Your task to perform on an android device: turn off priority inbox in the gmail app Image 0: 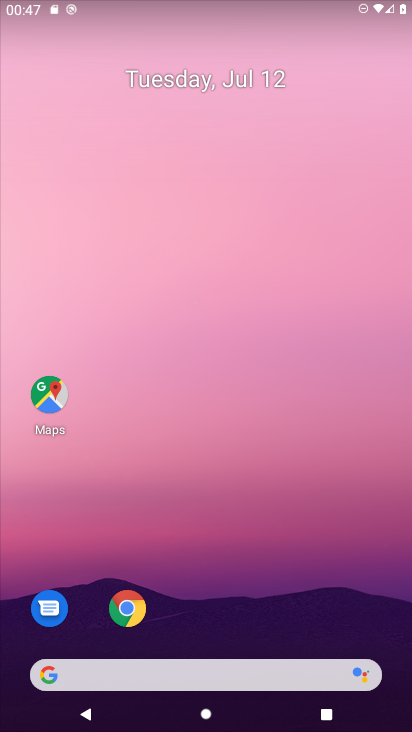
Step 0: drag from (231, 665) to (199, 111)
Your task to perform on an android device: turn off priority inbox in the gmail app Image 1: 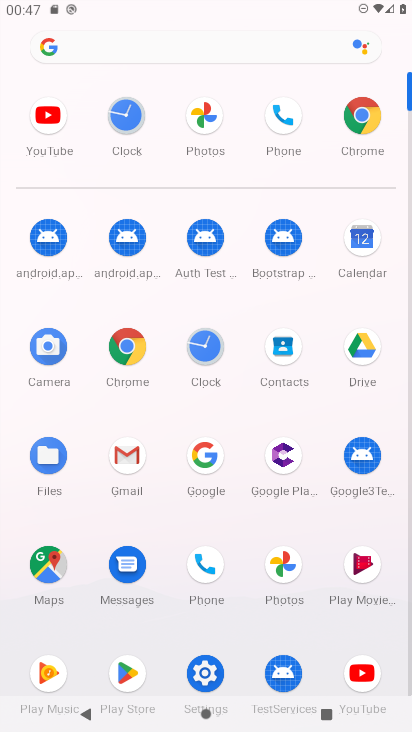
Step 1: click (124, 470)
Your task to perform on an android device: turn off priority inbox in the gmail app Image 2: 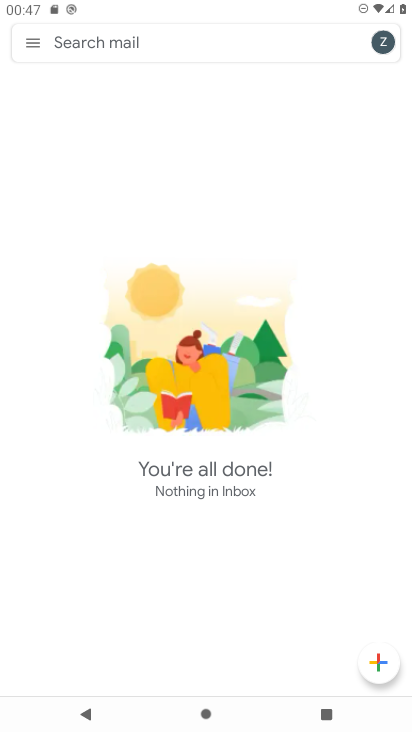
Step 2: click (27, 49)
Your task to perform on an android device: turn off priority inbox in the gmail app Image 3: 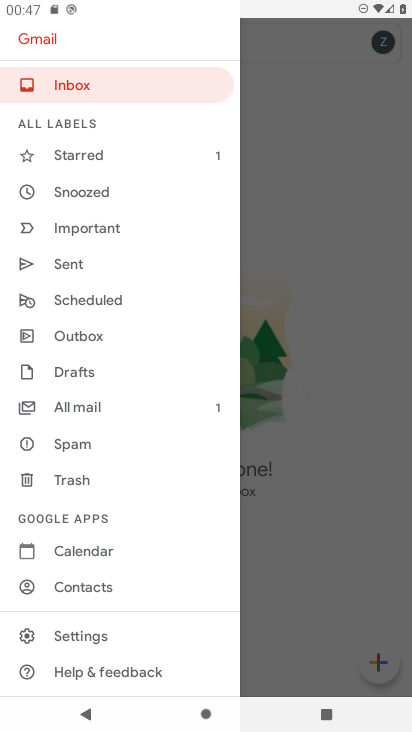
Step 3: click (105, 636)
Your task to perform on an android device: turn off priority inbox in the gmail app Image 4: 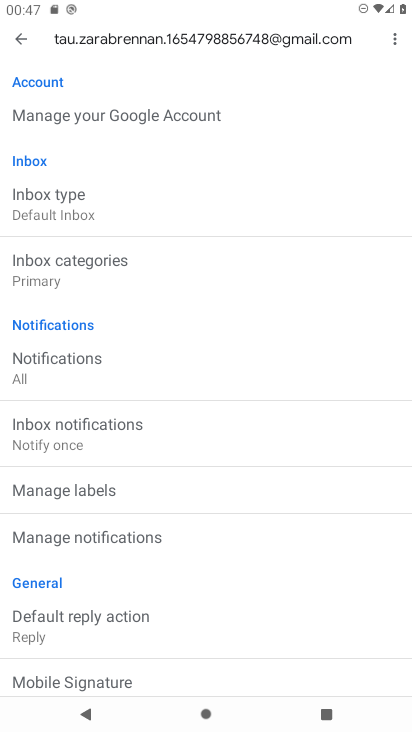
Step 4: drag from (121, 523) to (120, 102)
Your task to perform on an android device: turn off priority inbox in the gmail app Image 5: 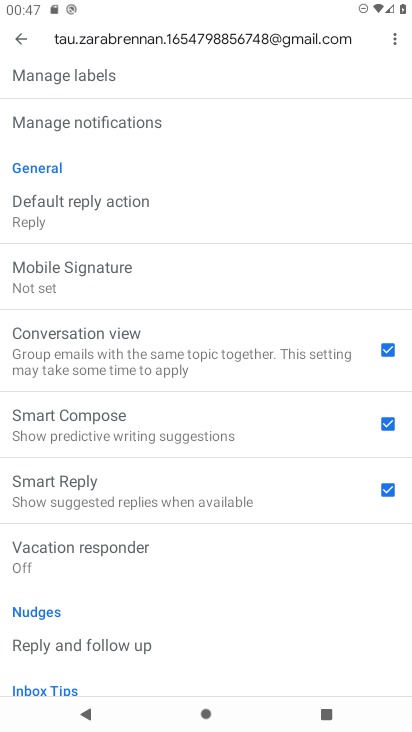
Step 5: drag from (85, 640) to (70, 197)
Your task to perform on an android device: turn off priority inbox in the gmail app Image 6: 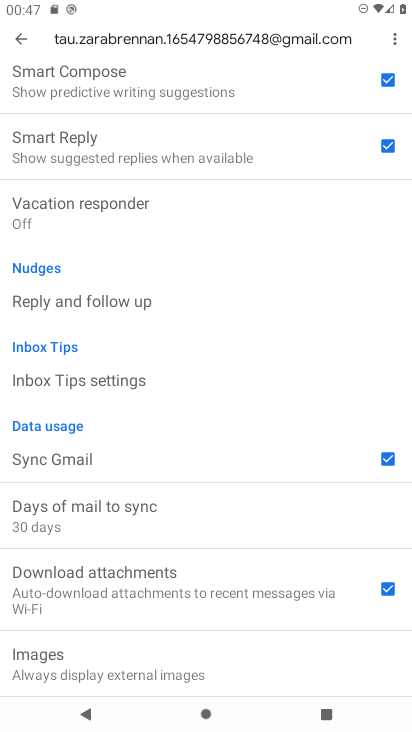
Step 6: drag from (132, 585) to (136, 231)
Your task to perform on an android device: turn off priority inbox in the gmail app Image 7: 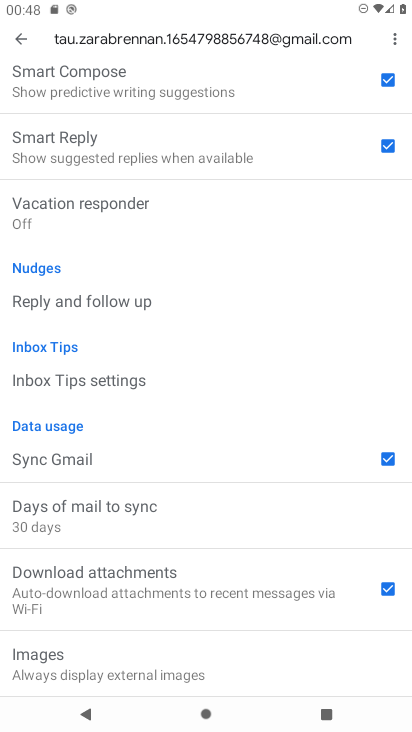
Step 7: drag from (255, 193) to (203, 631)
Your task to perform on an android device: turn off priority inbox in the gmail app Image 8: 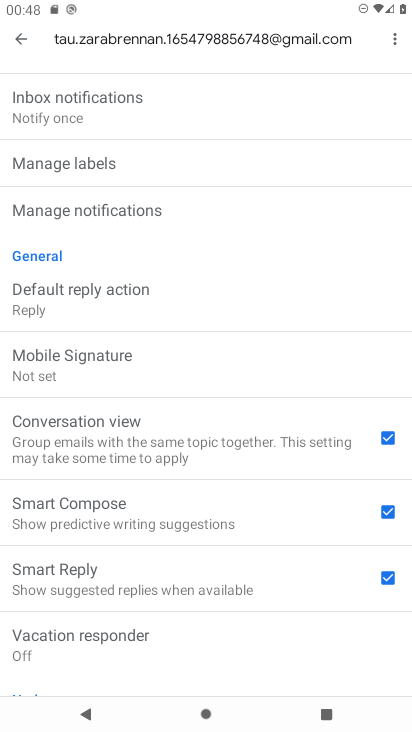
Step 8: drag from (111, 151) to (123, 517)
Your task to perform on an android device: turn off priority inbox in the gmail app Image 9: 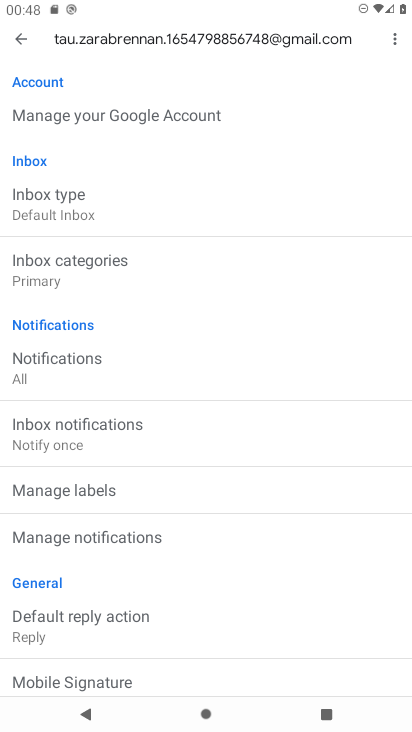
Step 9: click (49, 199)
Your task to perform on an android device: turn off priority inbox in the gmail app Image 10: 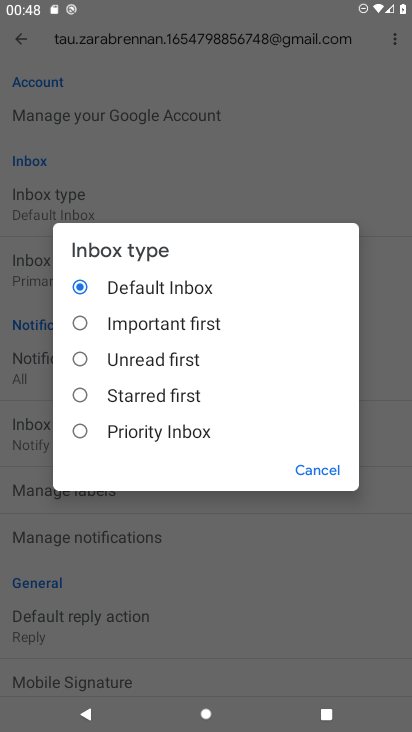
Step 10: task complete